Your task to perform on an android device: Open the web browser Image 0: 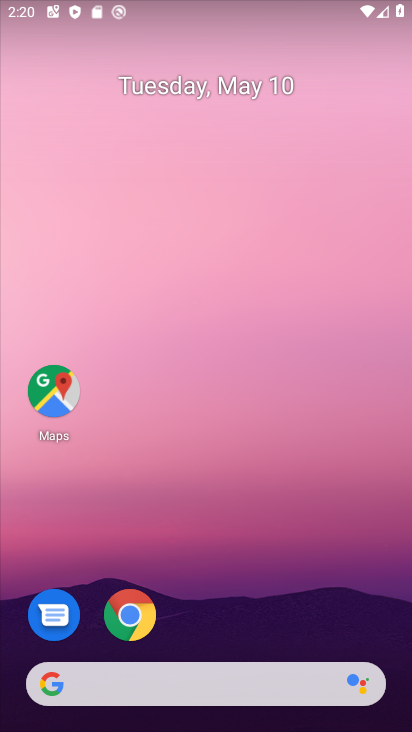
Step 0: click (136, 626)
Your task to perform on an android device: Open the web browser Image 1: 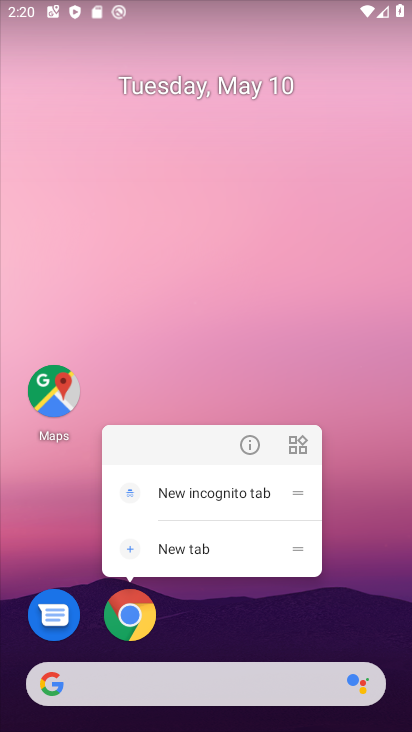
Step 1: click (149, 611)
Your task to perform on an android device: Open the web browser Image 2: 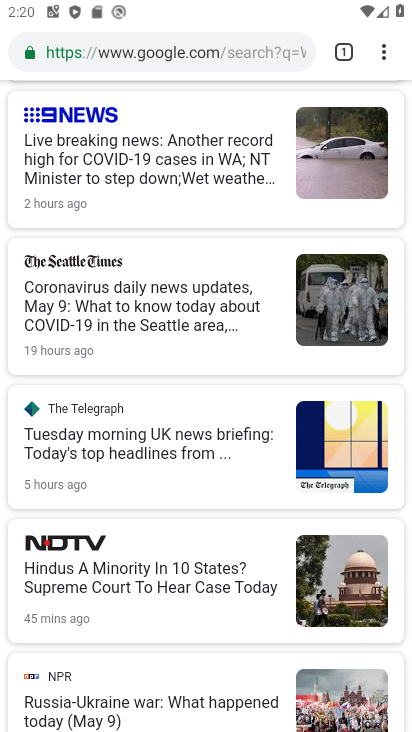
Step 2: click (168, 55)
Your task to perform on an android device: Open the web browser Image 3: 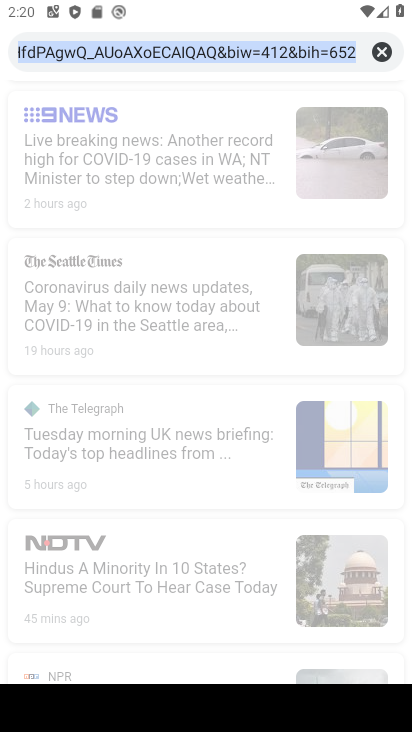
Step 3: click (382, 52)
Your task to perform on an android device: Open the web browser Image 4: 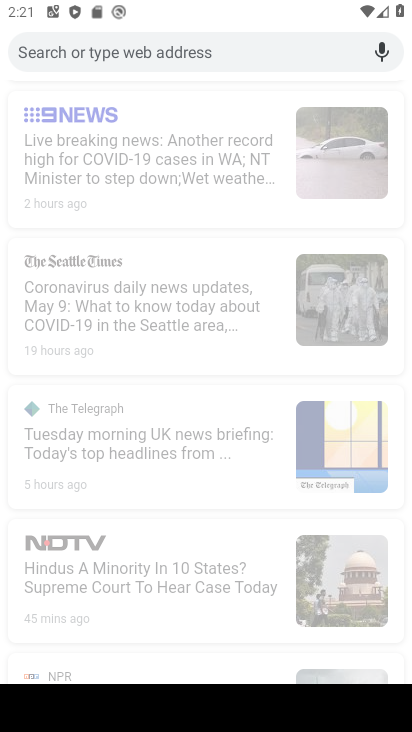
Step 4: type " web browser"
Your task to perform on an android device: Open the web browser Image 5: 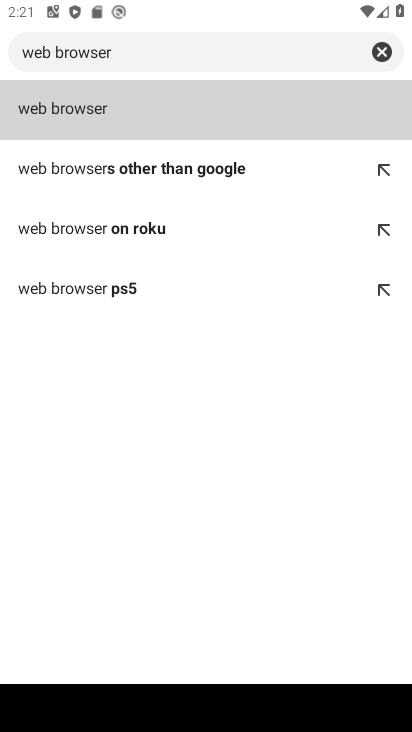
Step 5: click (85, 106)
Your task to perform on an android device: Open the web browser Image 6: 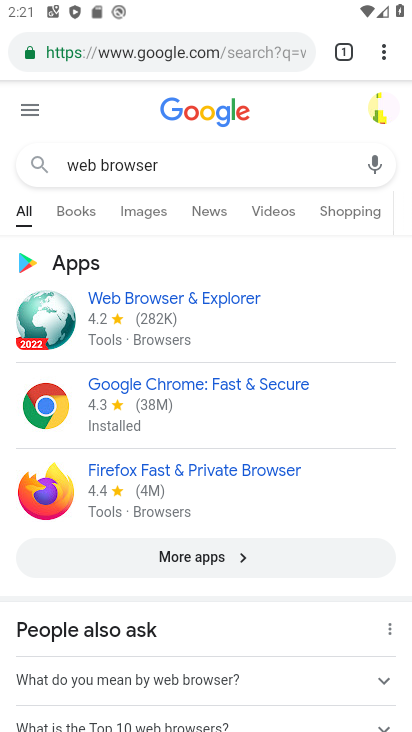
Step 6: task complete